Your task to perform on an android device: Open ESPN.com Image 0: 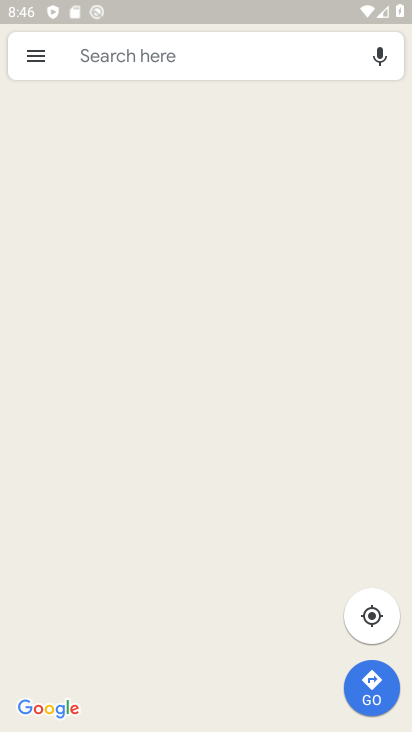
Step 0: press home button
Your task to perform on an android device: Open ESPN.com Image 1: 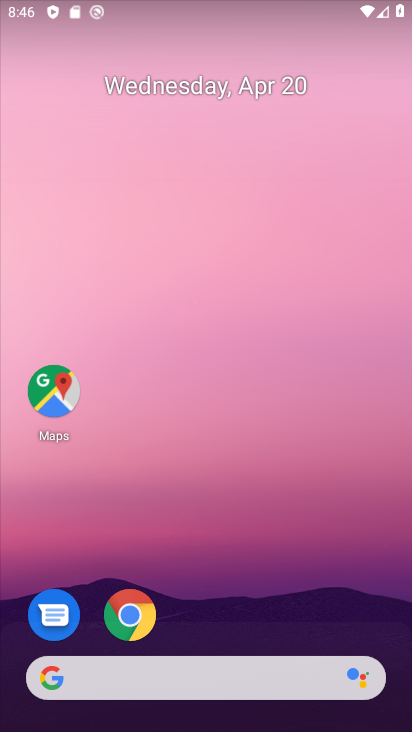
Step 1: drag from (202, 660) to (275, 0)
Your task to perform on an android device: Open ESPN.com Image 2: 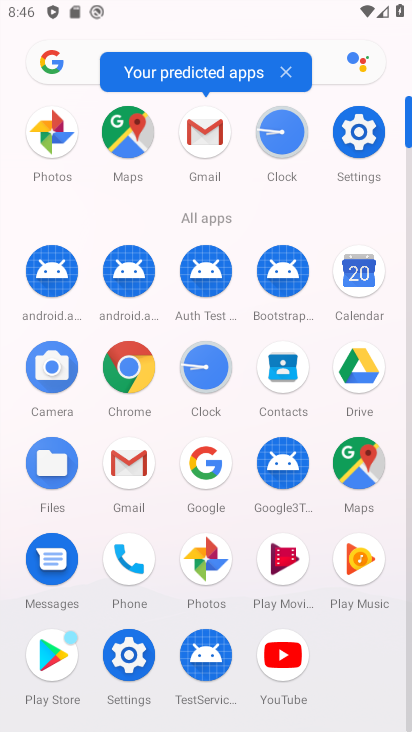
Step 2: click (120, 378)
Your task to perform on an android device: Open ESPN.com Image 3: 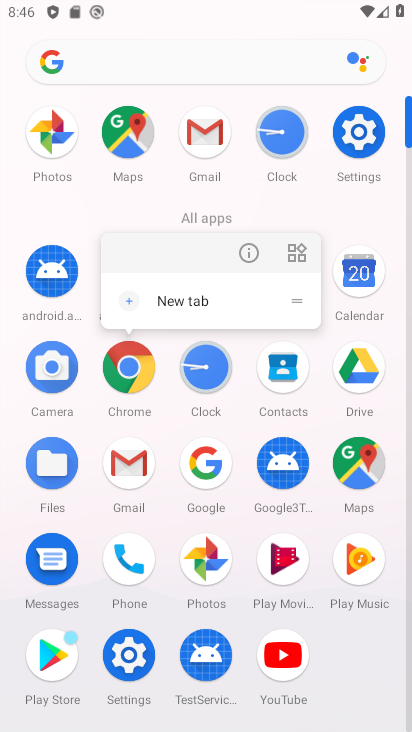
Step 3: click (126, 374)
Your task to perform on an android device: Open ESPN.com Image 4: 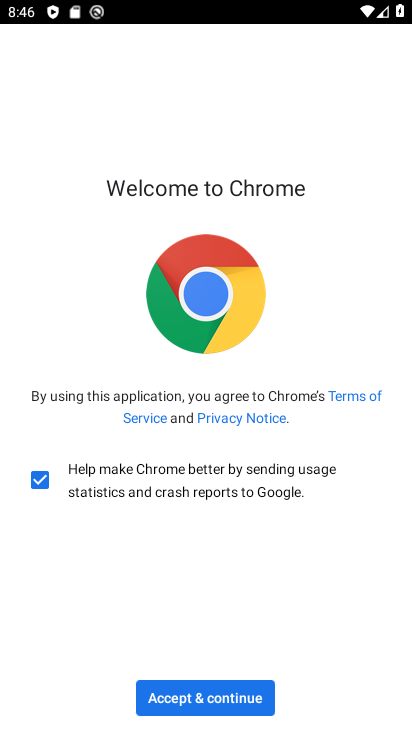
Step 4: click (201, 686)
Your task to perform on an android device: Open ESPN.com Image 5: 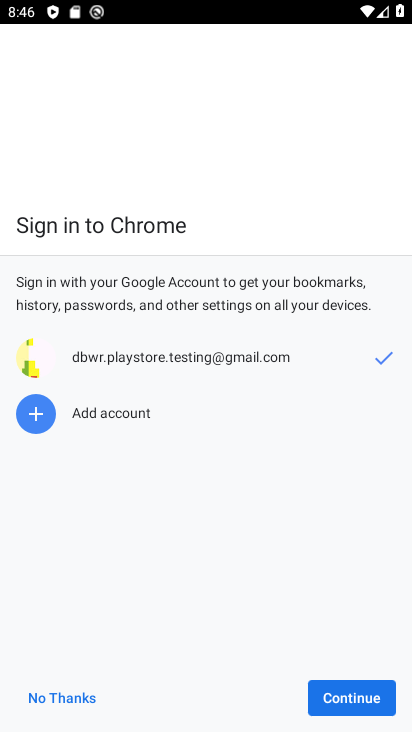
Step 5: click (362, 701)
Your task to perform on an android device: Open ESPN.com Image 6: 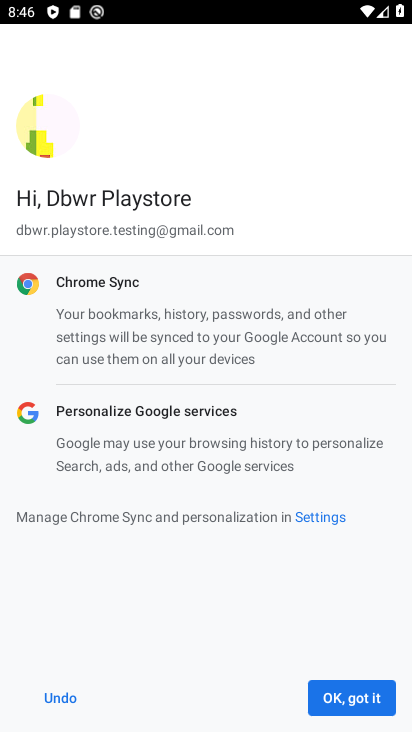
Step 6: click (362, 701)
Your task to perform on an android device: Open ESPN.com Image 7: 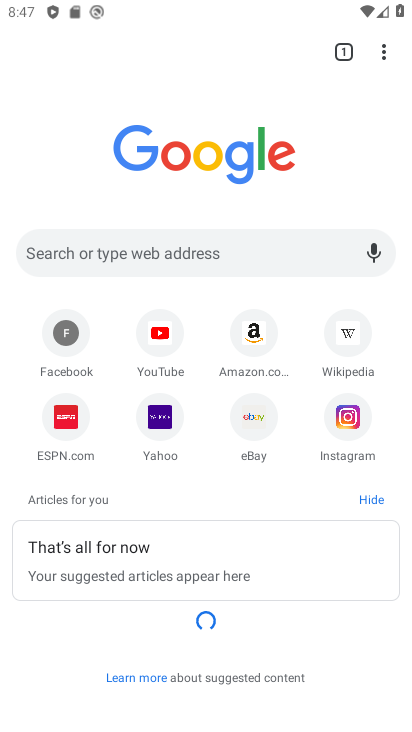
Step 7: click (55, 426)
Your task to perform on an android device: Open ESPN.com Image 8: 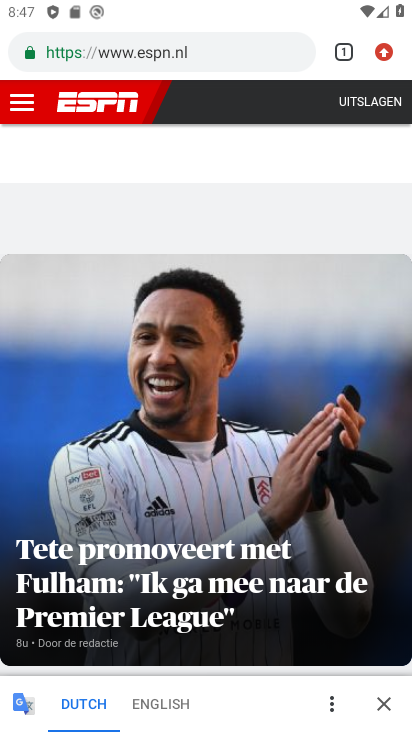
Step 8: task complete